Your task to perform on an android device: Go to wifi settings Image 0: 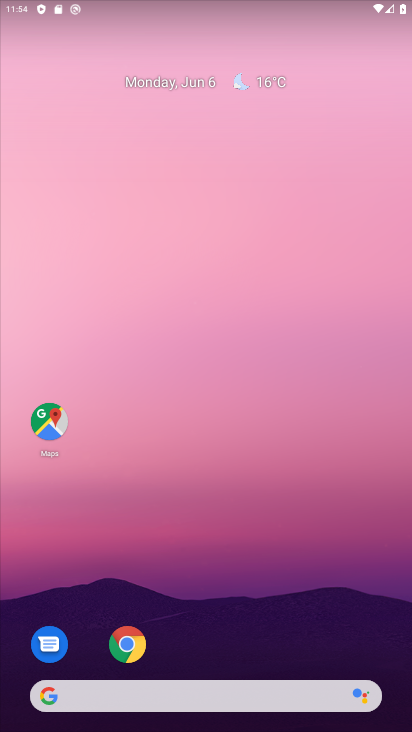
Step 0: drag from (262, 643) to (386, 181)
Your task to perform on an android device: Go to wifi settings Image 1: 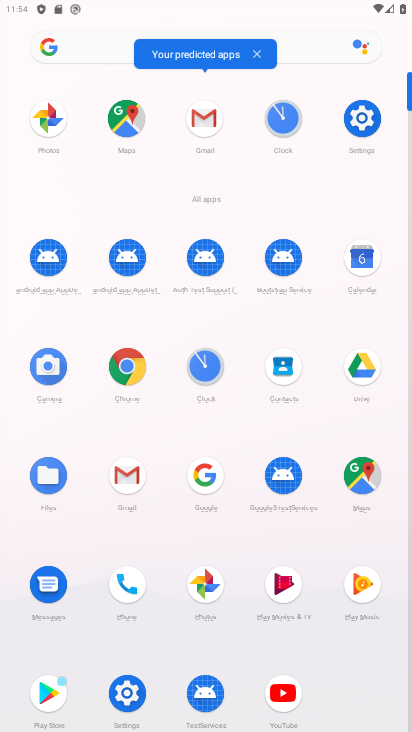
Step 1: click (371, 122)
Your task to perform on an android device: Go to wifi settings Image 2: 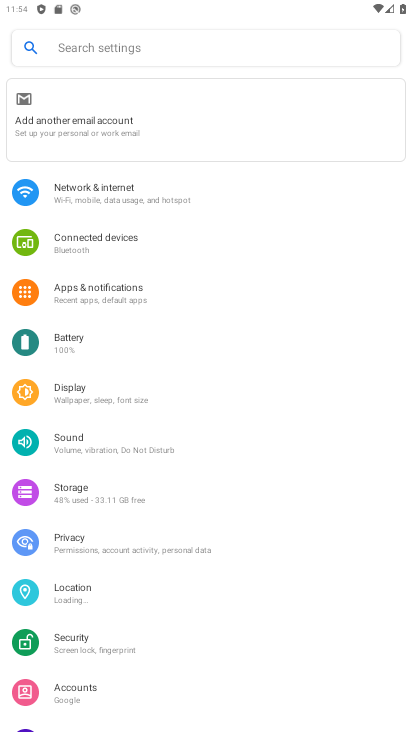
Step 2: click (153, 205)
Your task to perform on an android device: Go to wifi settings Image 3: 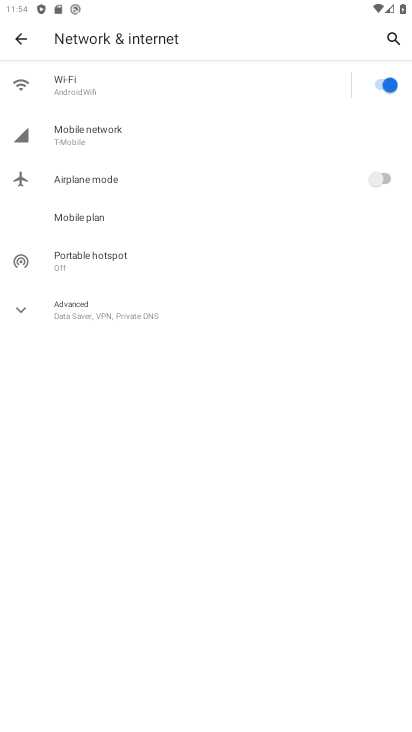
Step 3: click (85, 96)
Your task to perform on an android device: Go to wifi settings Image 4: 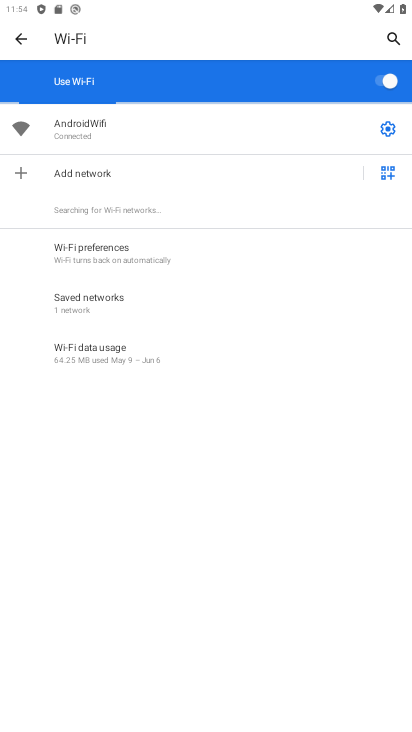
Step 4: task complete